Your task to perform on an android device: turn off priority inbox in the gmail app Image 0: 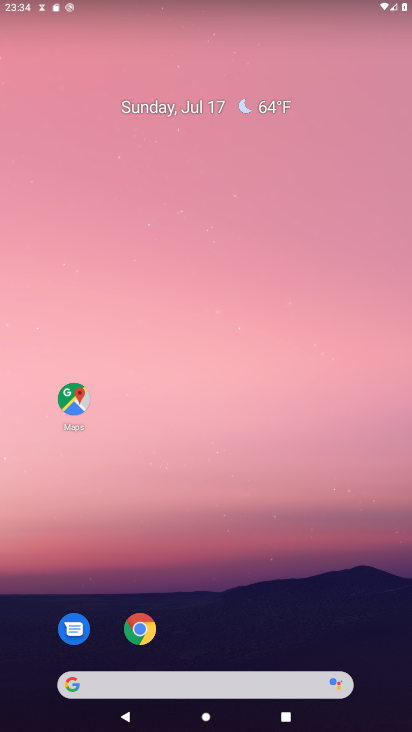
Step 0: drag from (316, 624) to (307, 227)
Your task to perform on an android device: turn off priority inbox in the gmail app Image 1: 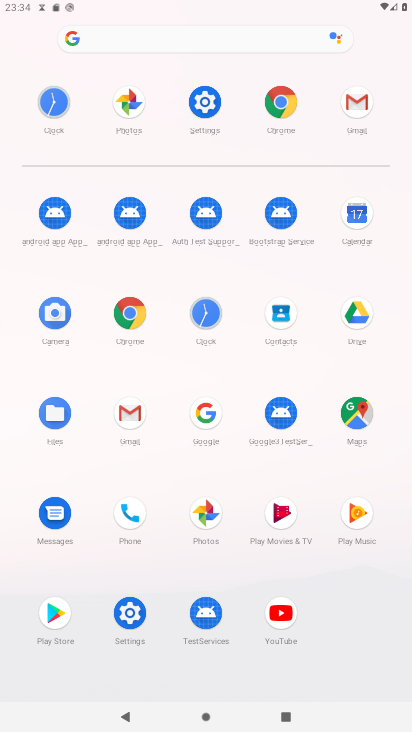
Step 1: click (359, 104)
Your task to perform on an android device: turn off priority inbox in the gmail app Image 2: 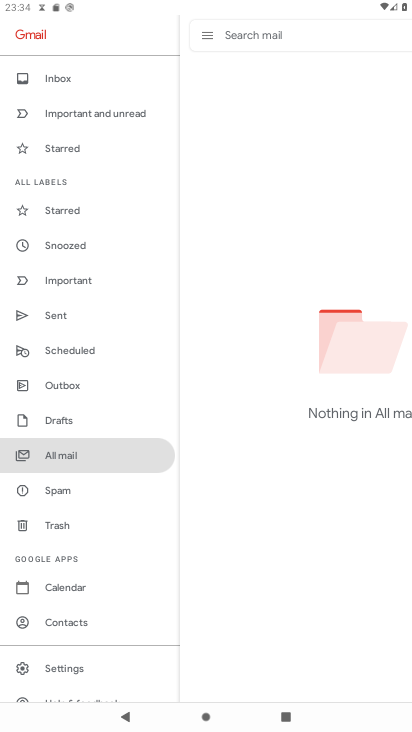
Step 2: click (75, 667)
Your task to perform on an android device: turn off priority inbox in the gmail app Image 3: 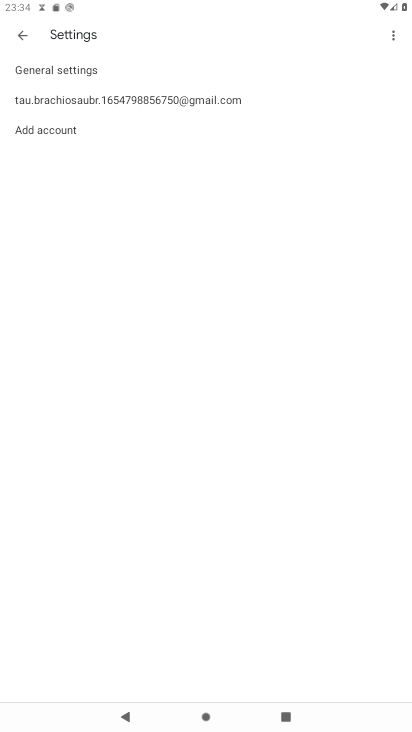
Step 3: click (86, 93)
Your task to perform on an android device: turn off priority inbox in the gmail app Image 4: 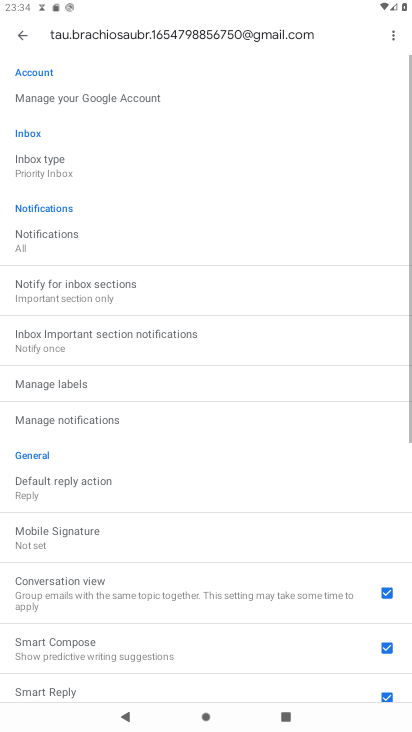
Step 4: drag from (175, 591) to (269, 73)
Your task to perform on an android device: turn off priority inbox in the gmail app Image 5: 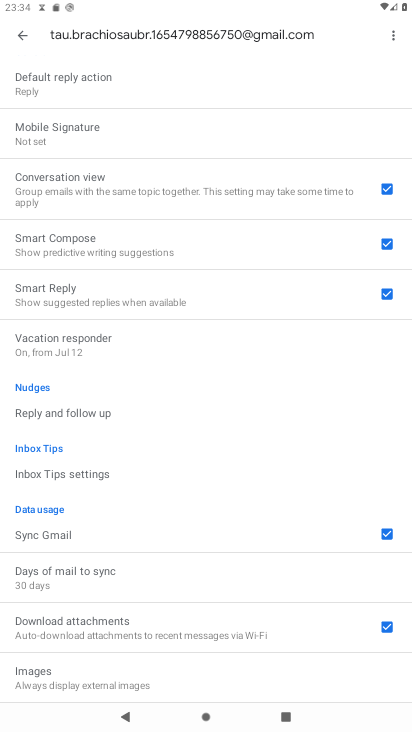
Step 5: drag from (221, 286) to (199, 558)
Your task to perform on an android device: turn off priority inbox in the gmail app Image 6: 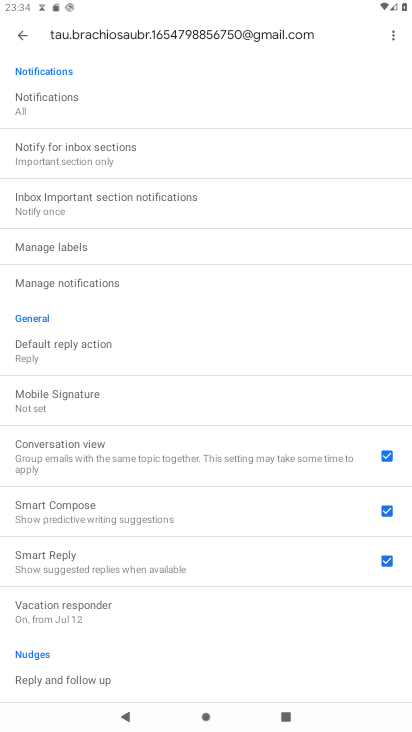
Step 6: drag from (66, 210) to (83, 699)
Your task to perform on an android device: turn off priority inbox in the gmail app Image 7: 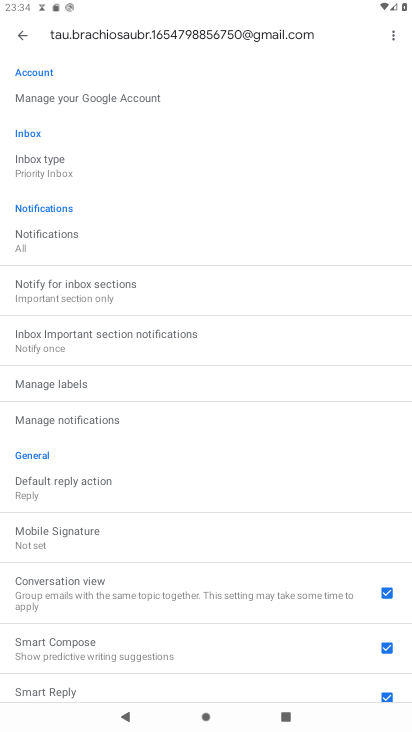
Step 7: click (55, 167)
Your task to perform on an android device: turn off priority inbox in the gmail app Image 8: 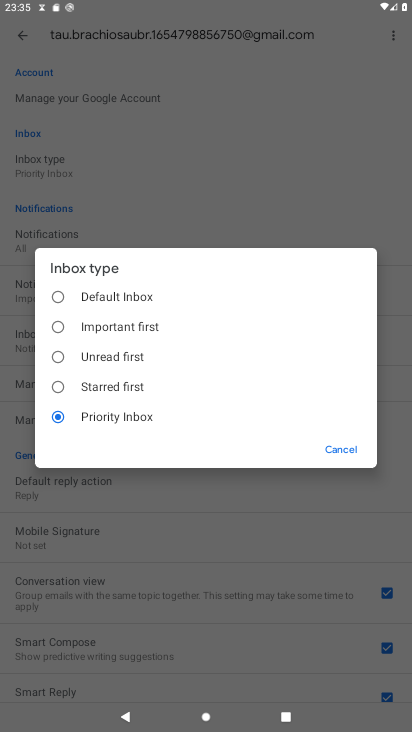
Step 8: click (121, 295)
Your task to perform on an android device: turn off priority inbox in the gmail app Image 9: 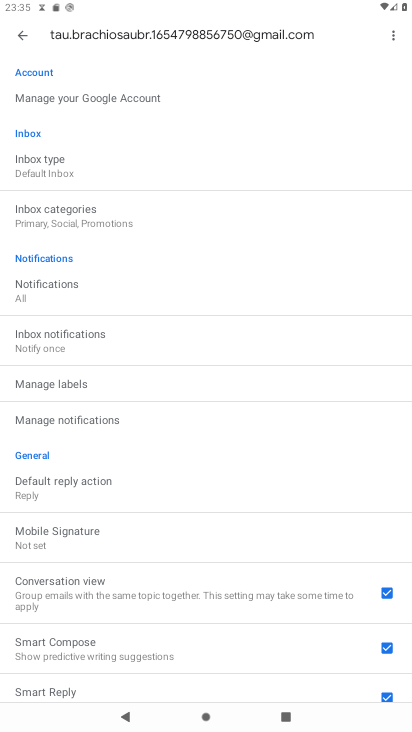
Step 9: task complete